Your task to perform on an android device: add a label to a message in the gmail app Image 0: 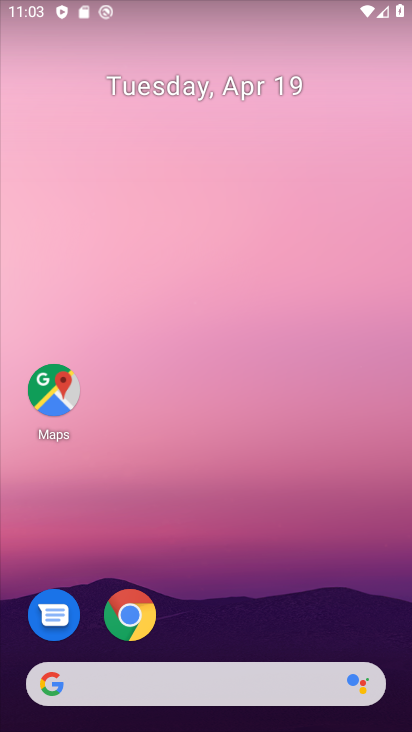
Step 0: drag from (194, 645) to (188, 287)
Your task to perform on an android device: add a label to a message in the gmail app Image 1: 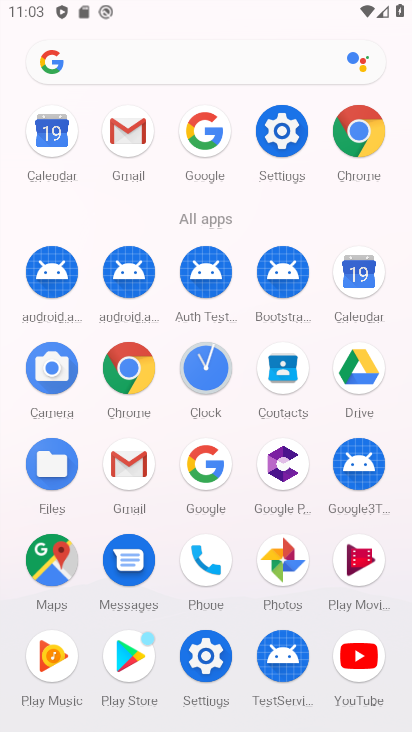
Step 1: click (139, 476)
Your task to perform on an android device: add a label to a message in the gmail app Image 2: 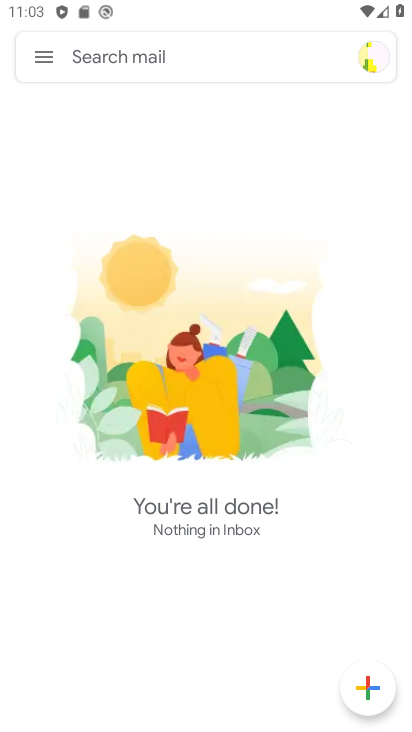
Step 2: task complete